Your task to perform on an android device: Check the weather Image 0: 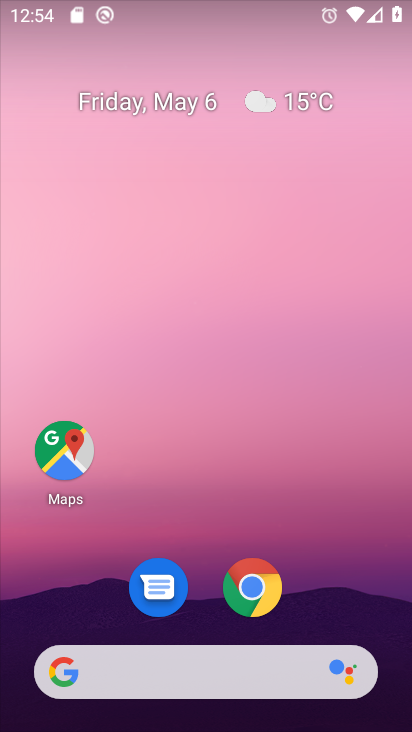
Step 0: click (266, 101)
Your task to perform on an android device: Check the weather Image 1: 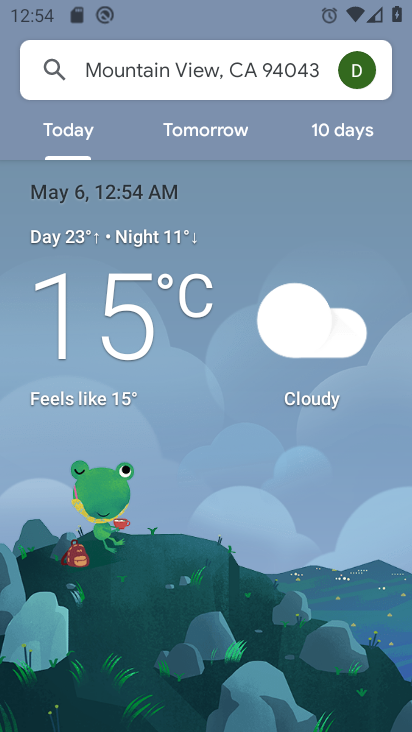
Step 1: task complete